Your task to perform on an android device: Open battery settings Image 0: 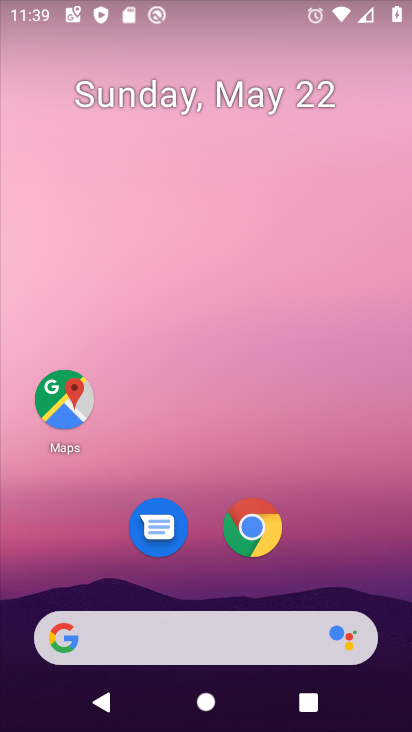
Step 0: drag from (342, 575) to (297, 125)
Your task to perform on an android device: Open battery settings Image 1: 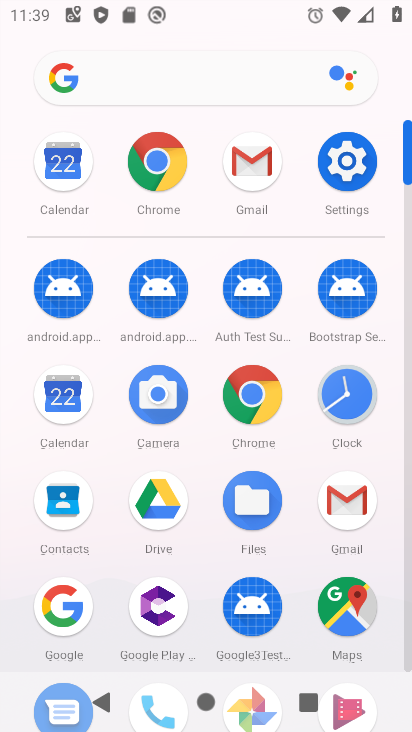
Step 1: click (355, 174)
Your task to perform on an android device: Open battery settings Image 2: 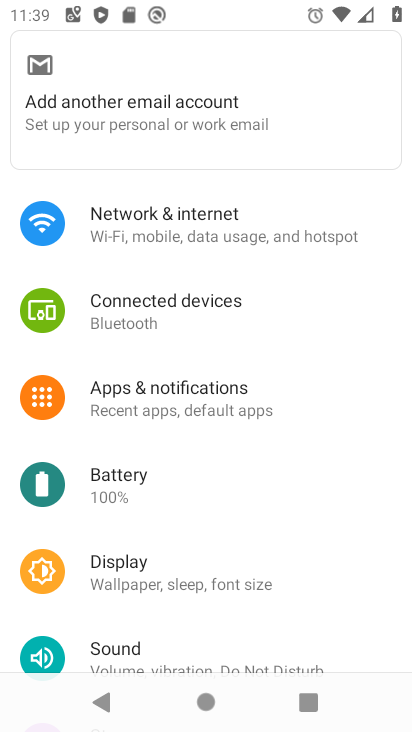
Step 2: click (159, 475)
Your task to perform on an android device: Open battery settings Image 3: 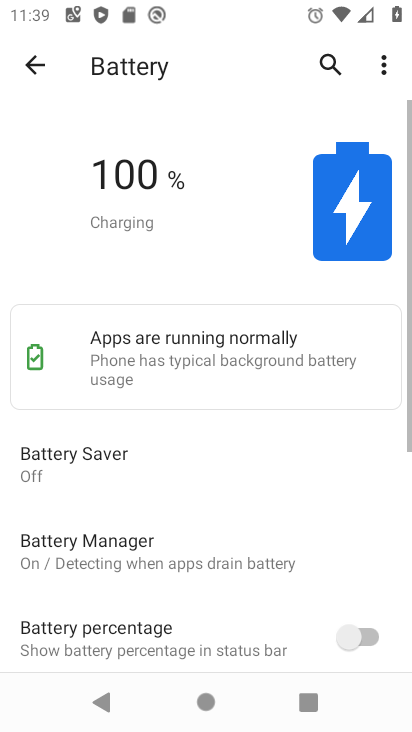
Step 3: task complete